Your task to perform on an android device: What is the news today? Image 0: 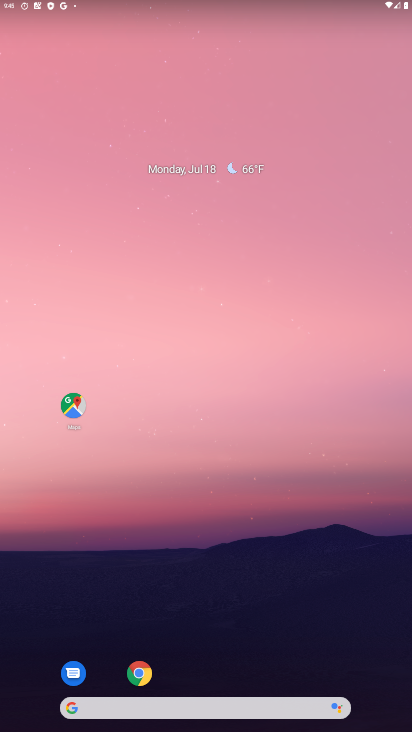
Step 0: press home button
Your task to perform on an android device: What is the news today? Image 1: 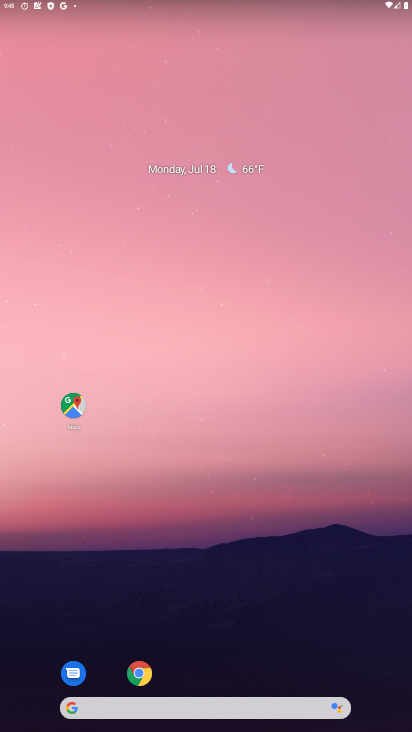
Step 1: drag from (206, 671) to (185, 94)
Your task to perform on an android device: What is the news today? Image 2: 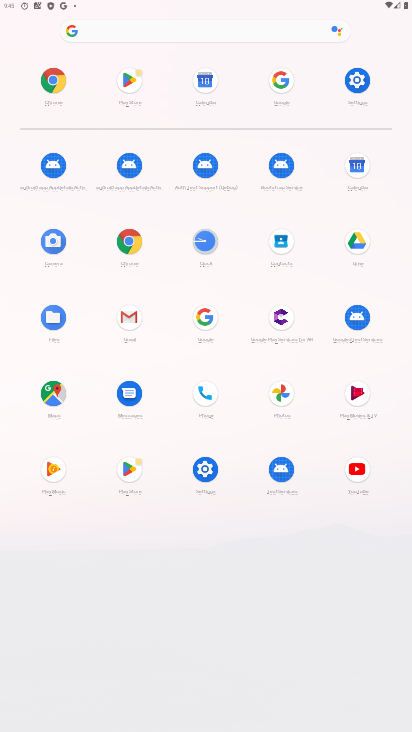
Step 2: click (278, 79)
Your task to perform on an android device: What is the news today? Image 3: 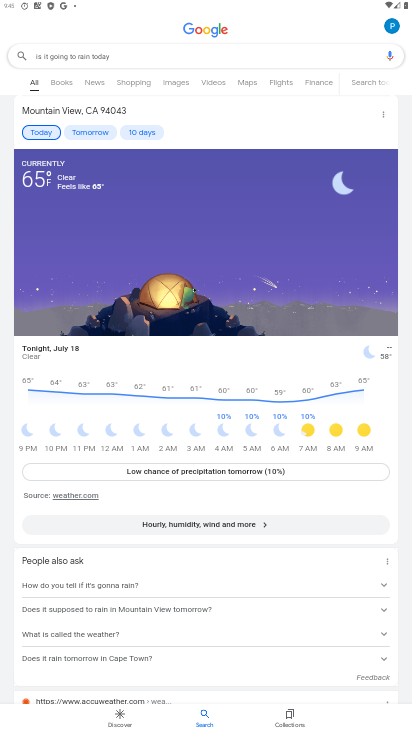
Step 3: click (197, 56)
Your task to perform on an android device: What is the news today? Image 4: 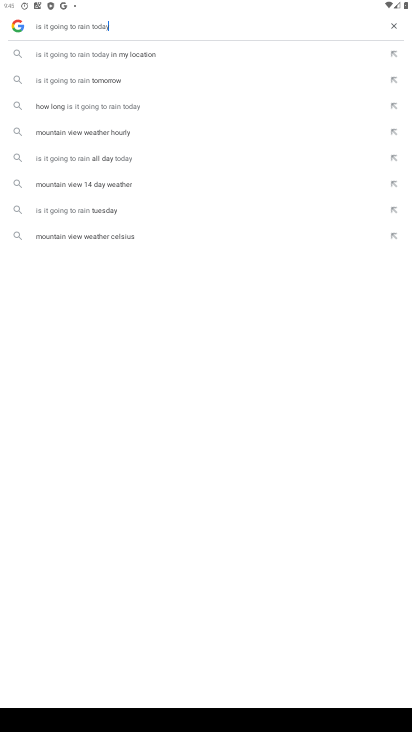
Step 4: click (397, 22)
Your task to perform on an android device: What is the news today? Image 5: 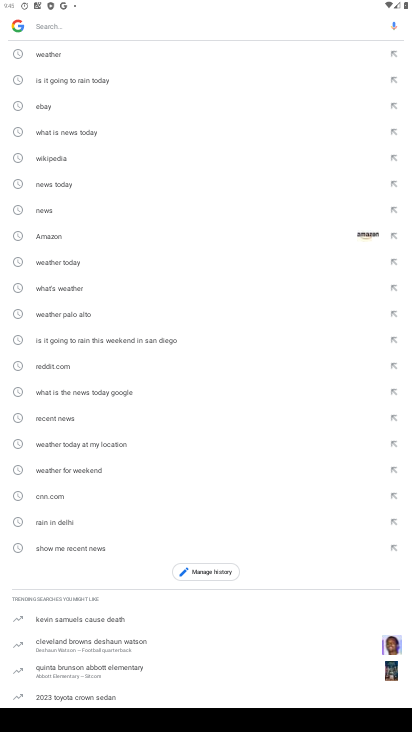
Step 5: type "what is the news today"
Your task to perform on an android device: What is the news today? Image 6: 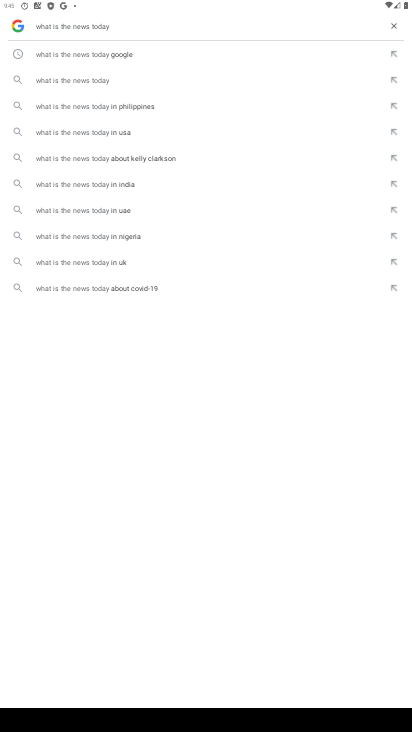
Step 6: click (91, 76)
Your task to perform on an android device: What is the news today? Image 7: 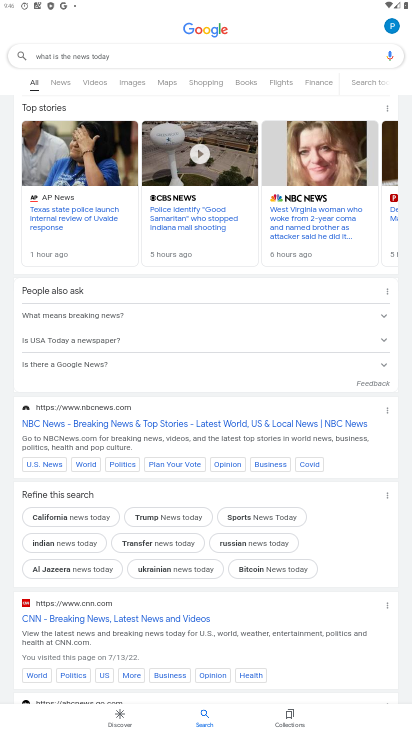
Step 7: task complete